Your task to perform on an android device: Open Reddit.com Image 0: 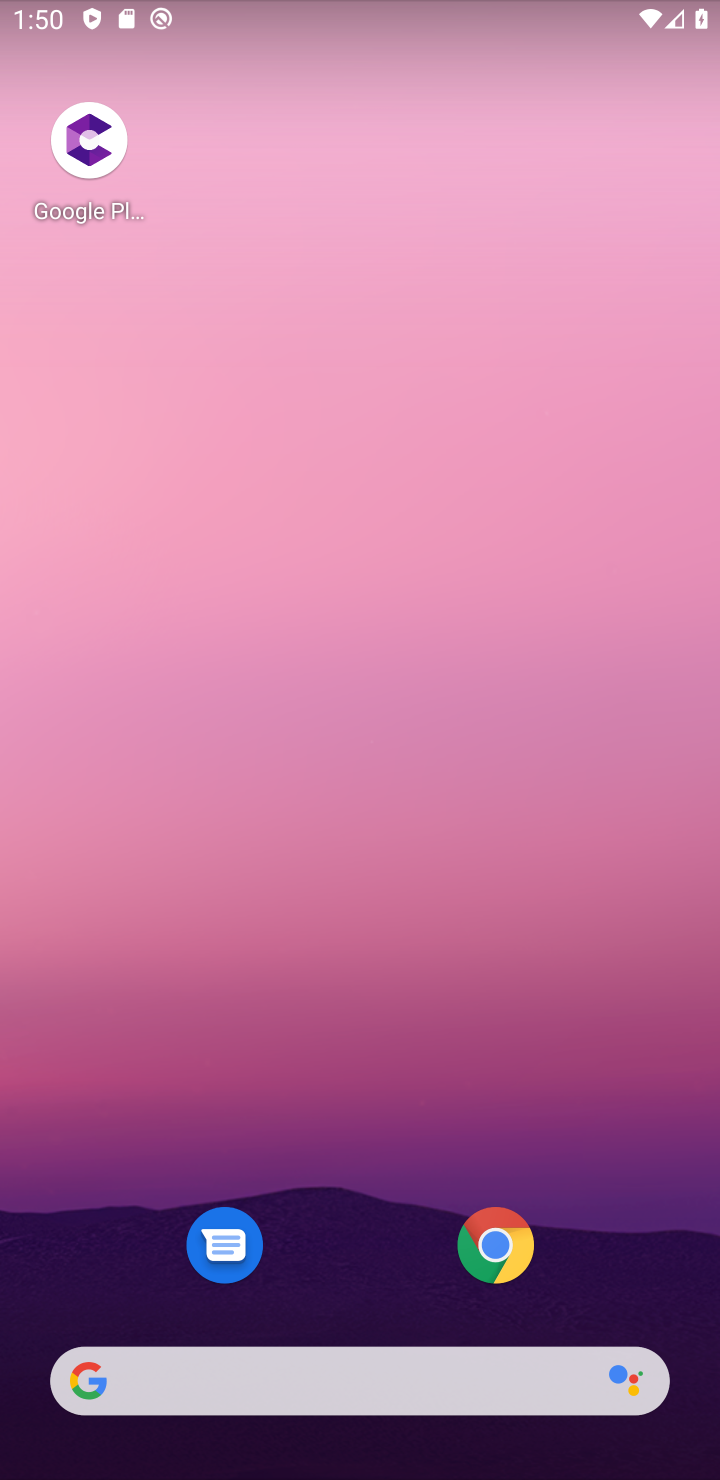
Step 0: click (500, 1247)
Your task to perform on an android device: Open Reddit.com Image 1: 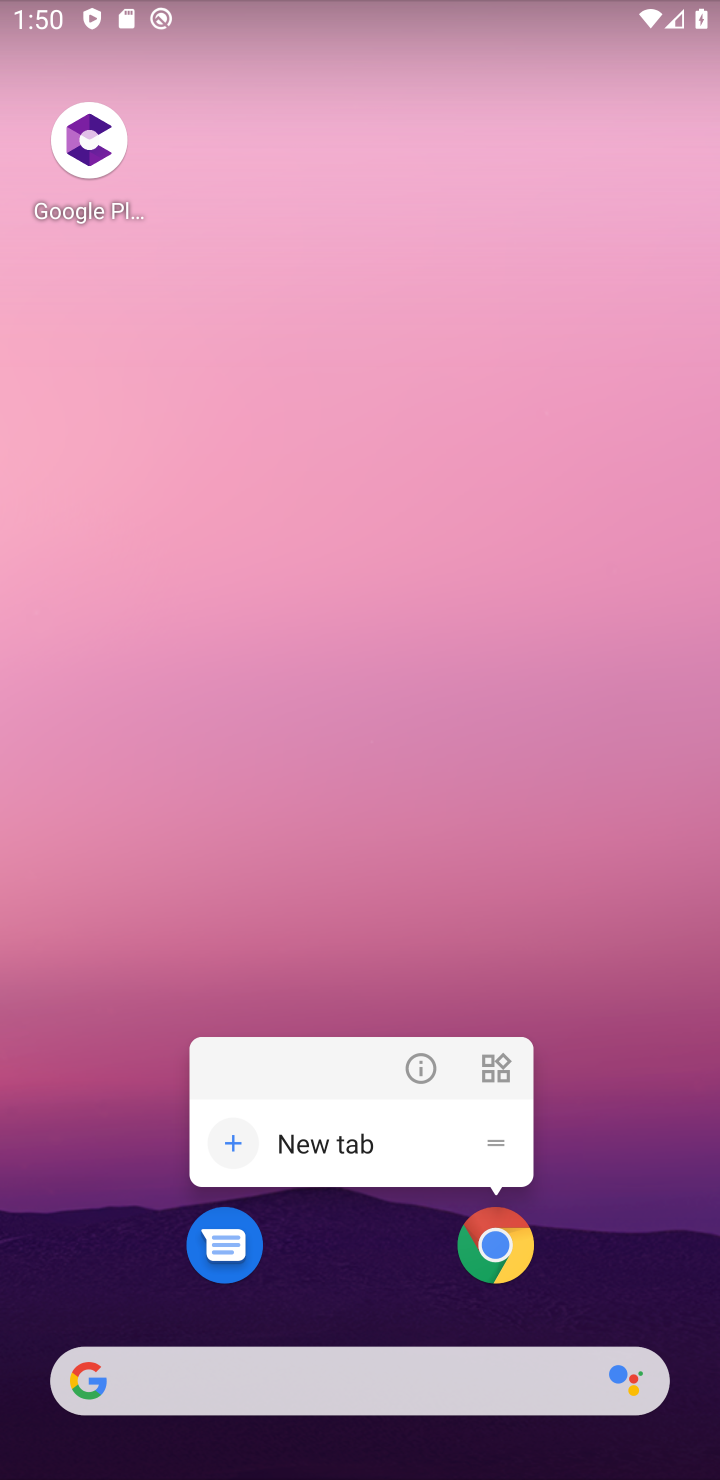
Step 1: click (492, 1247)
Your task to perform on an android device: Open Reddit.com Image 2: 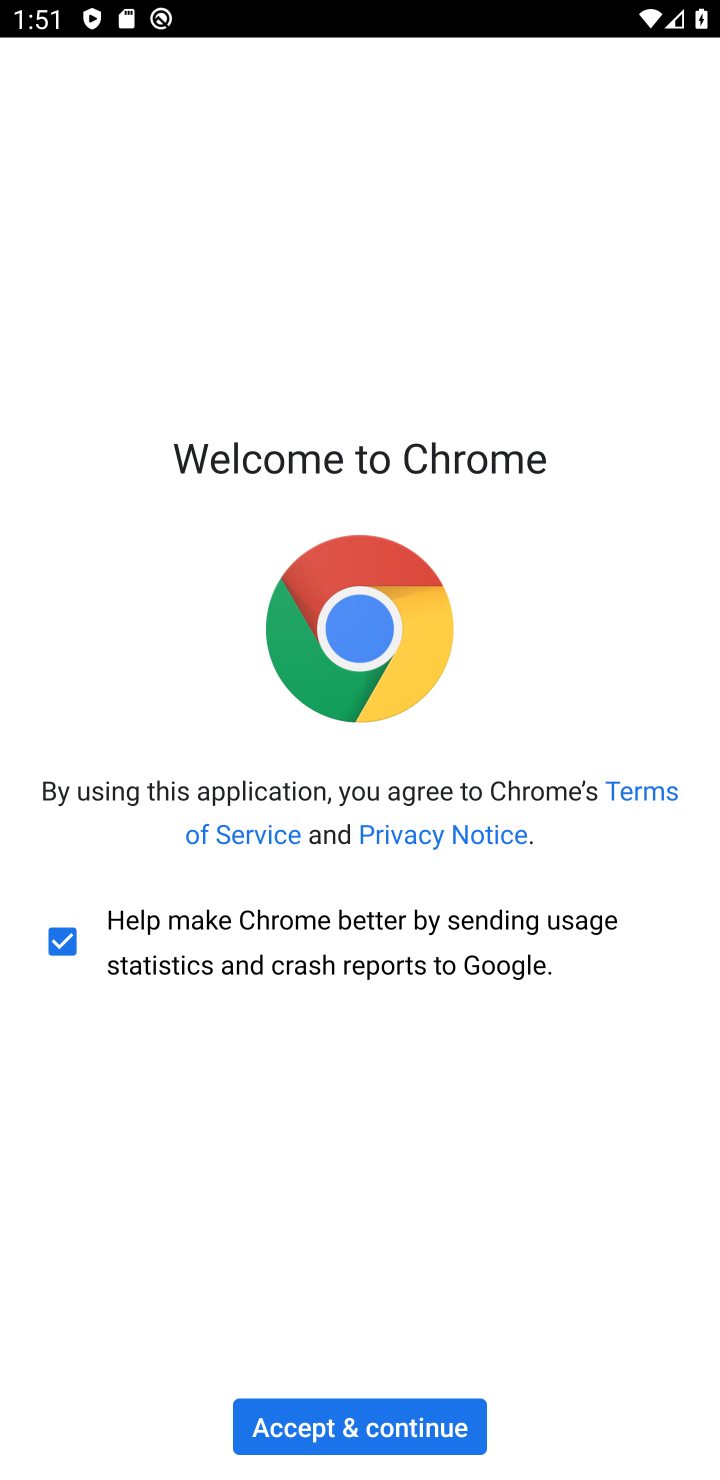
Step 2: click (371, 1435)
Your task to perform on an android device: Open Reddit.com Image 3: 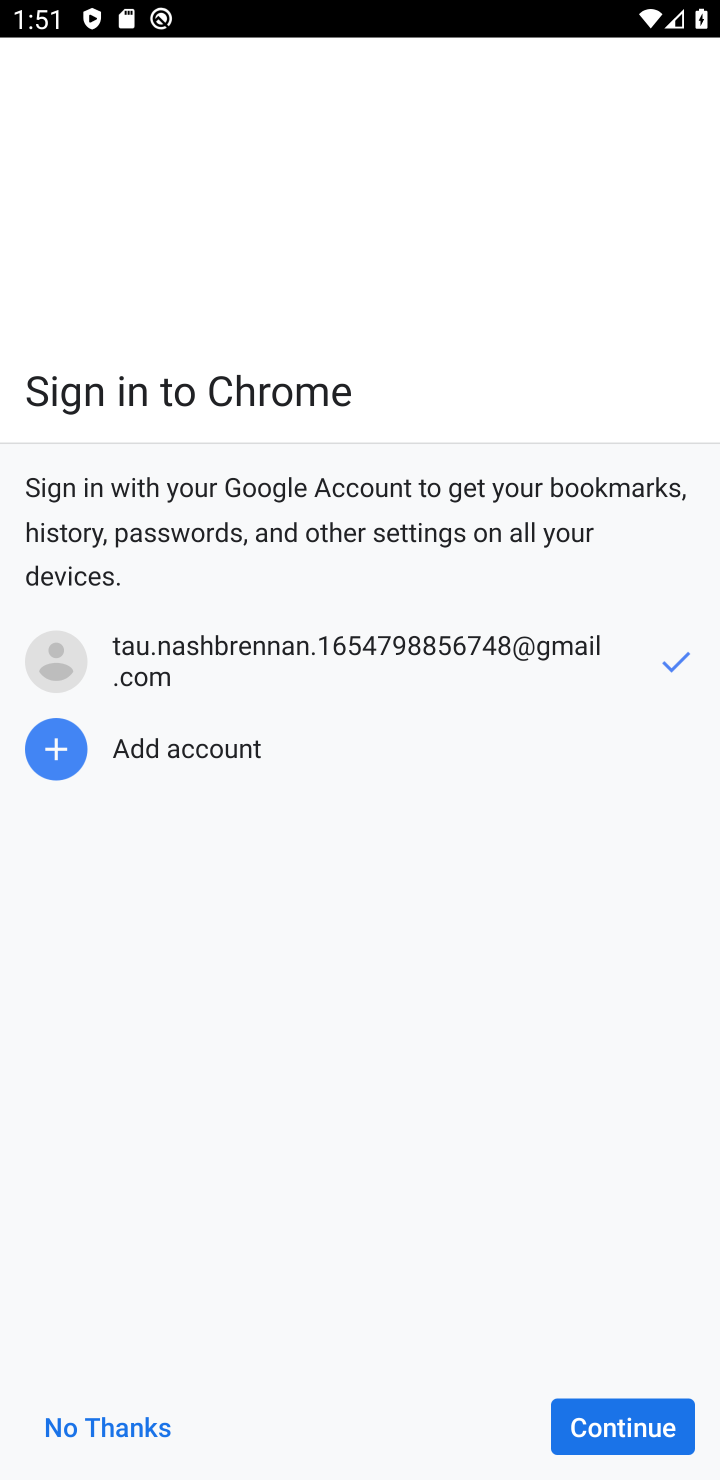
Step 3: click (615, 1412)
Your task to perform on an android device: Open Reddit.com Image 4: 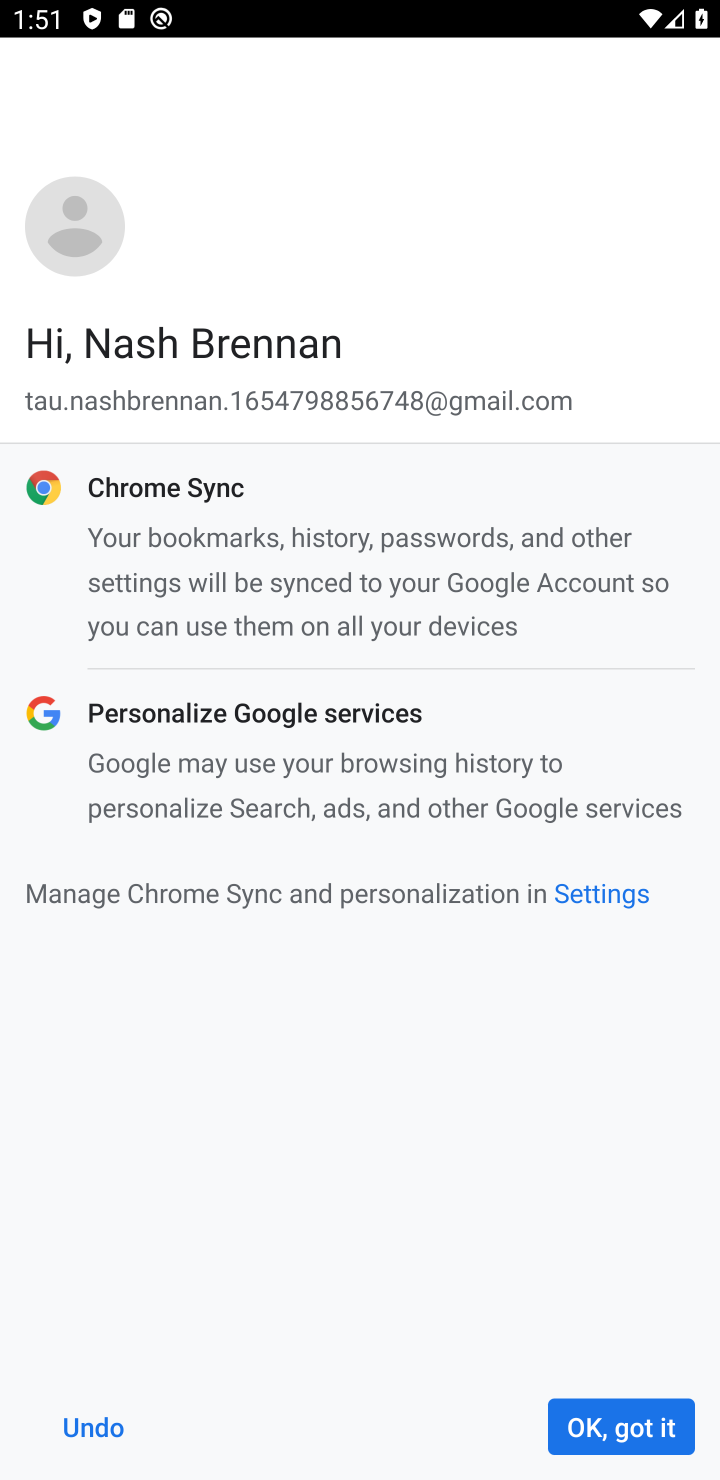
Step 4: click (619, 1419)
Your task to perform on an android device: Open Reddit.com Image 5: 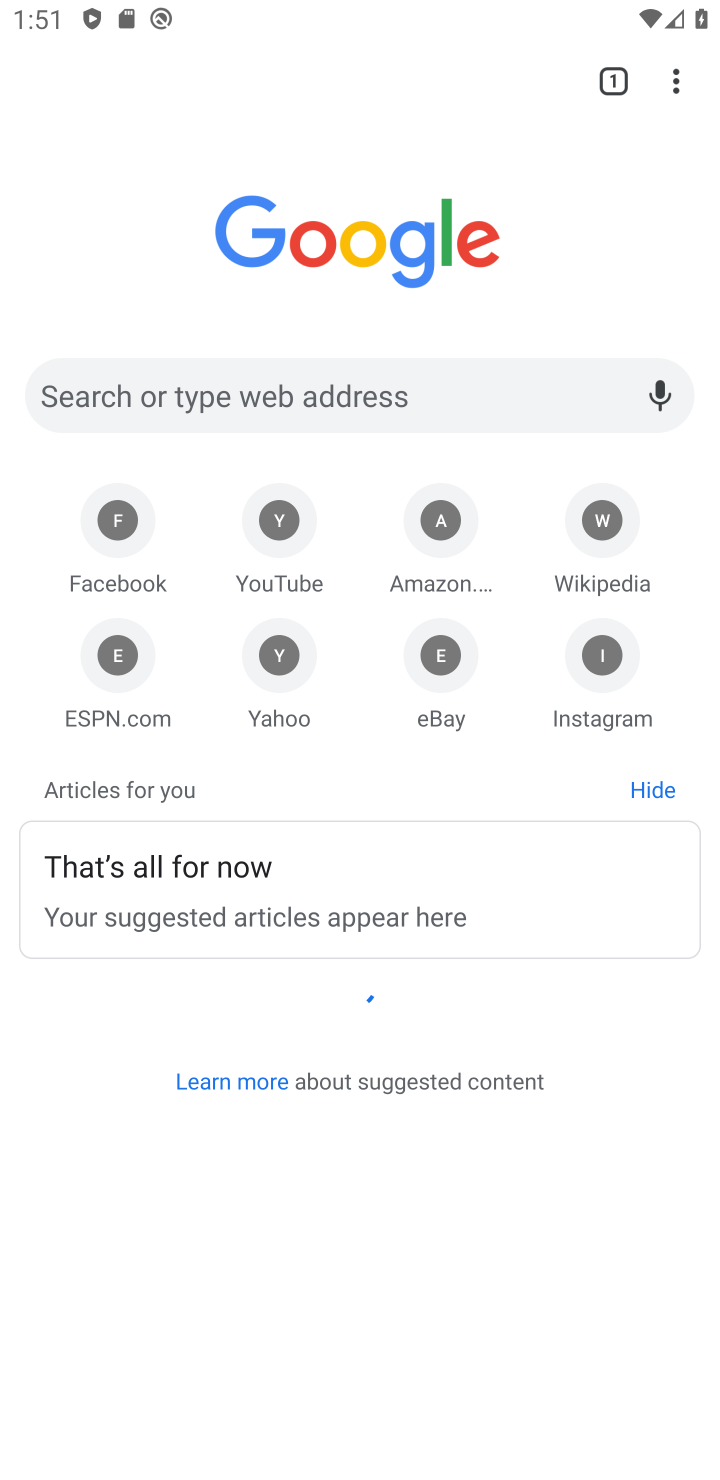
Step 5: click (354, 372)
Your task to perform on an android device: Open Reddit.com Image 6: 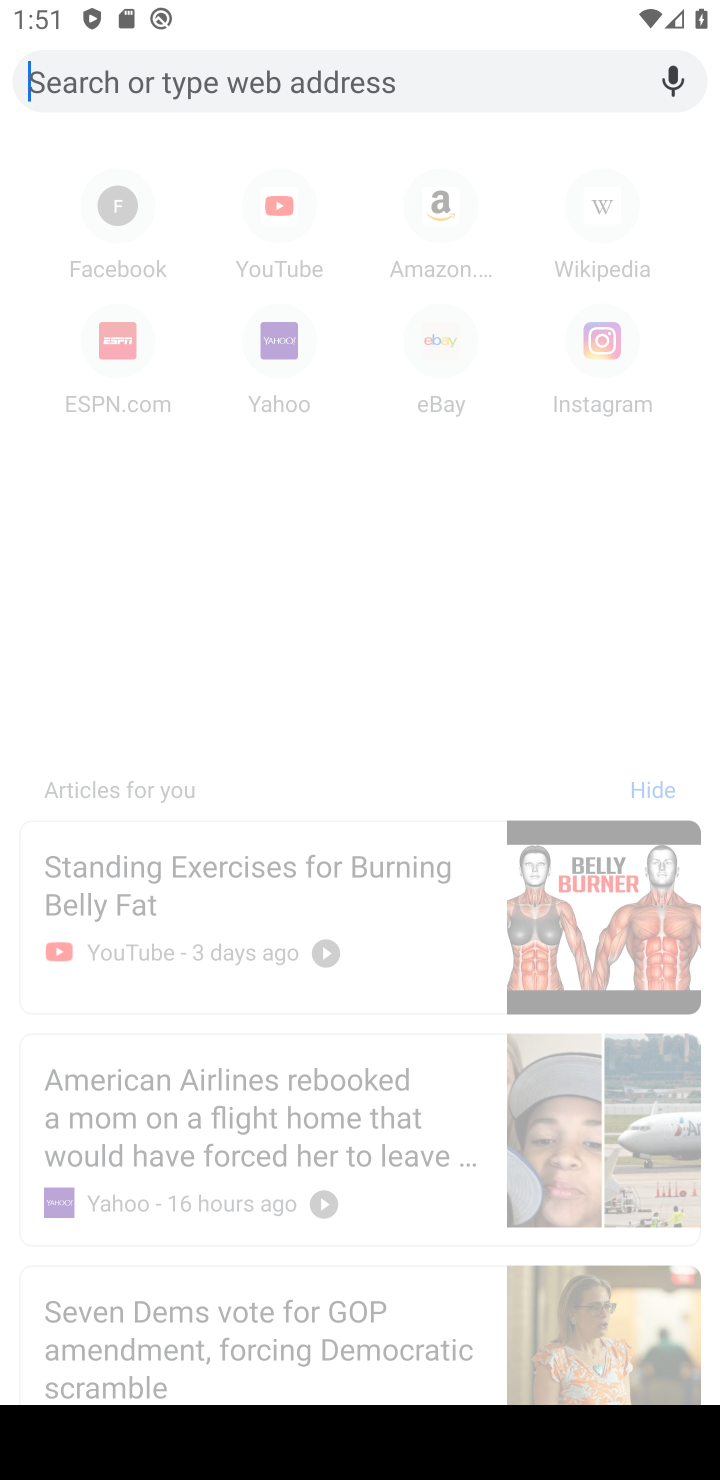
Step 6: type "reddit.com"
Your task to perform on an android device: Open Reddit.com Image 7: 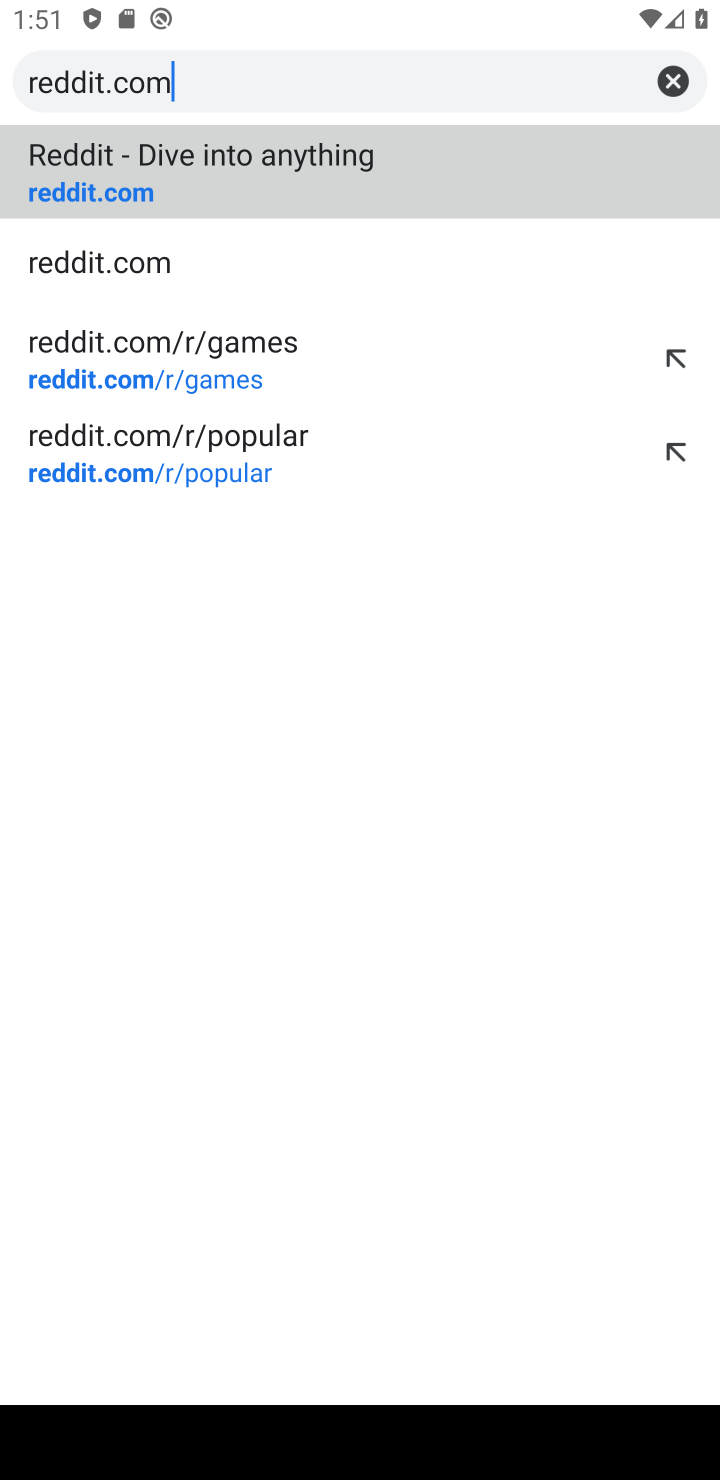
Step 7: click (224, 160)
Your task to perform on an android device: Open Reddit.com Image 8: 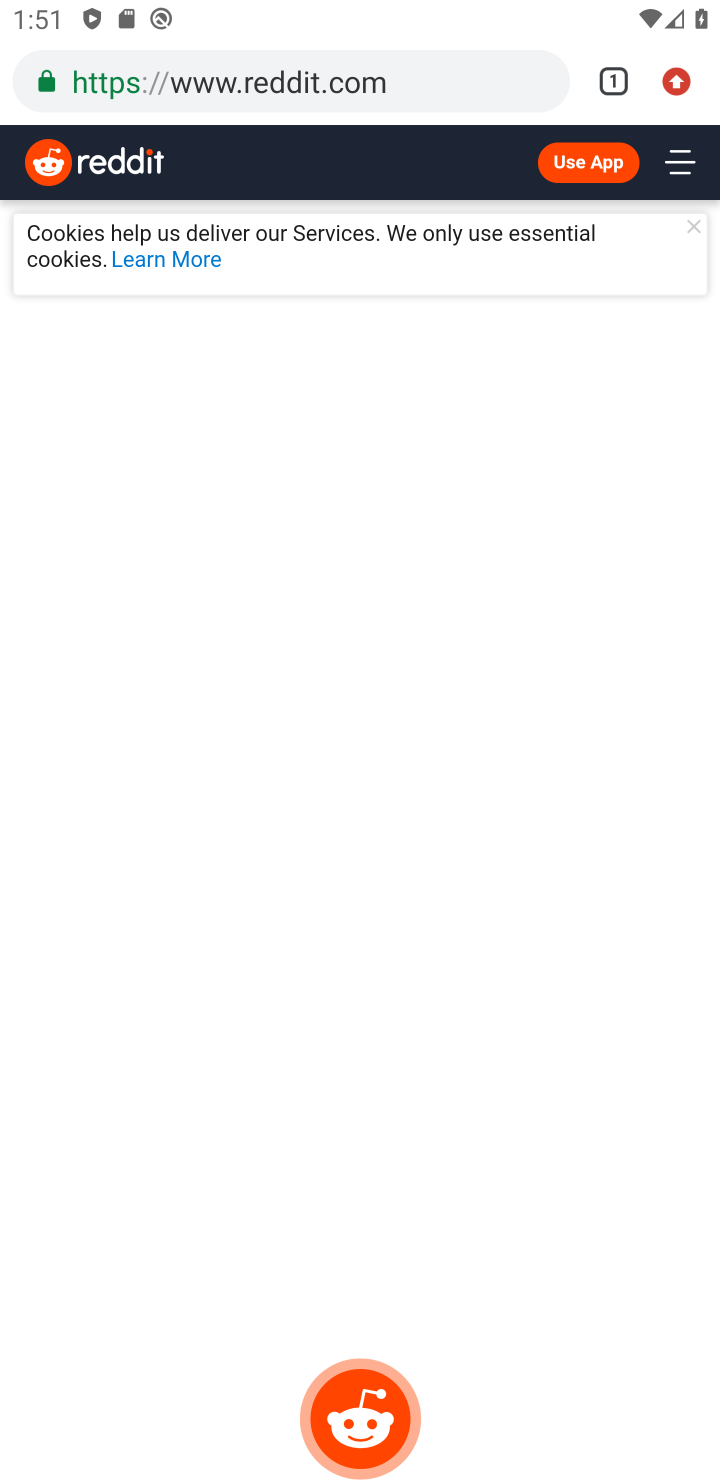
Step 8: task complete